Your task to perform on an android device: turn on airplane mode Image 0: 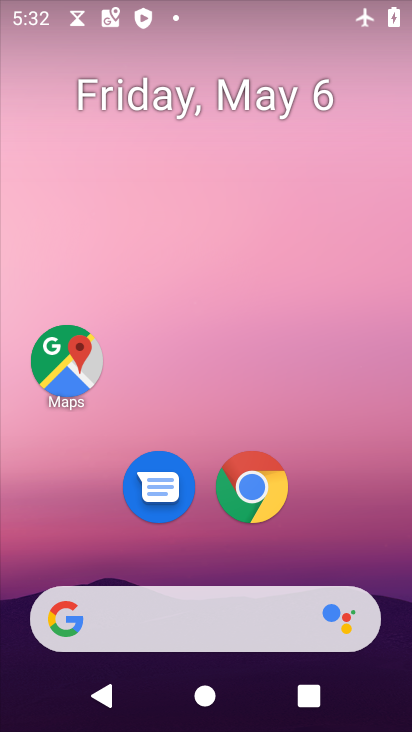
Step 0: drag from (351, 544) to (337, 0)
Your task to perform on an android device: turn on airplane mode Image 1: 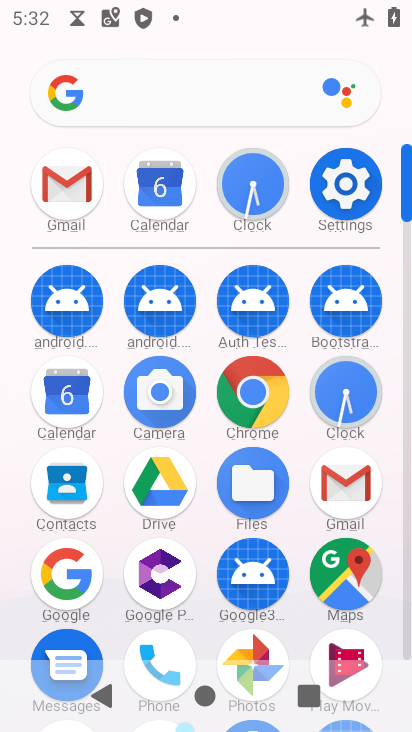
Step 1: click (342, 185)
Your task to perform on an android device: turn on airplane mode Image 2: 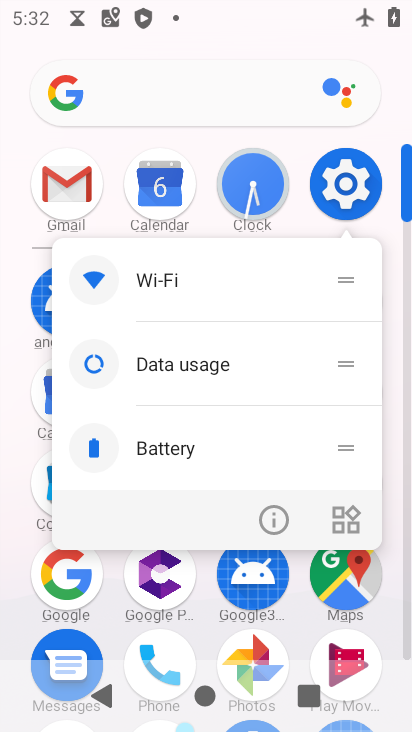
Step 2: click (342, 184)
Your task to perform on an android device: turn on airplane mode Image 3: 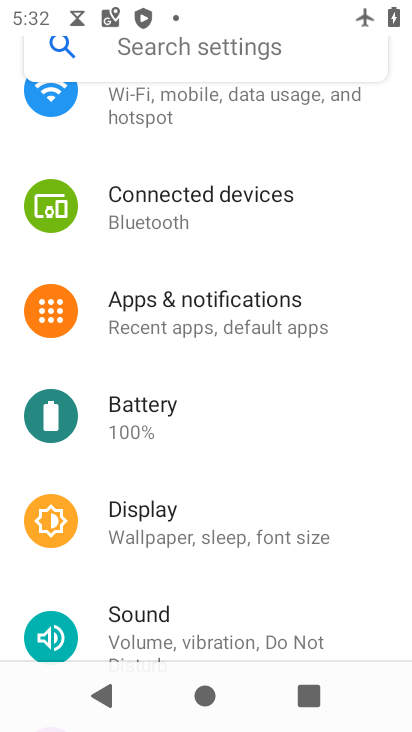
Step 3: drag from (166, 211) to (159, 420)
Your task to perform on an android device: turn on airplane mode Image 4: 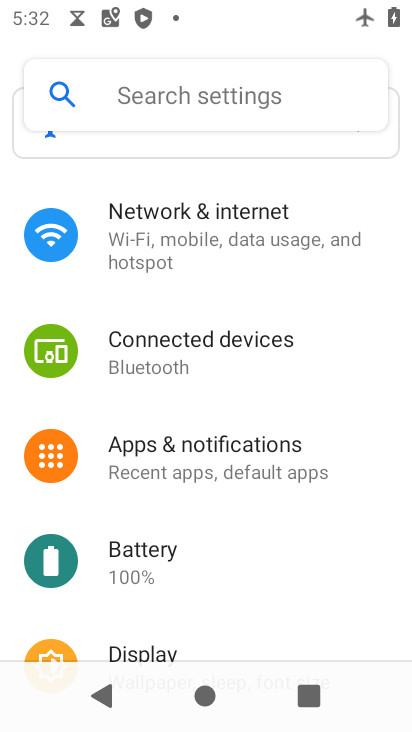
Step 4: click (208, 224)
Your task to perform on an android device: turn on airplane mode Image 5: 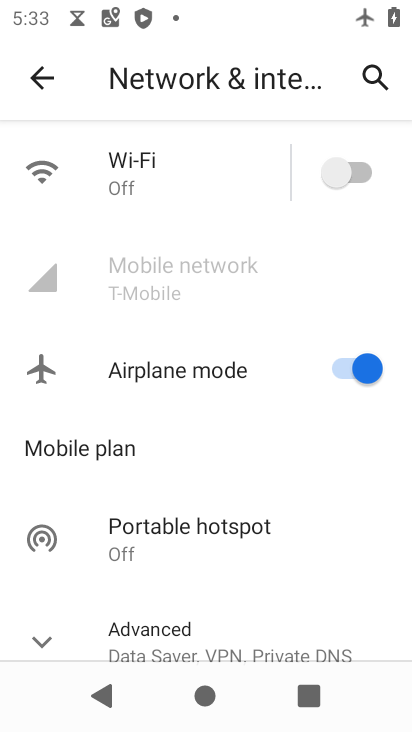
Step 5: task complete